Your task to perform on an android device: turn off airplane mode Image 0: 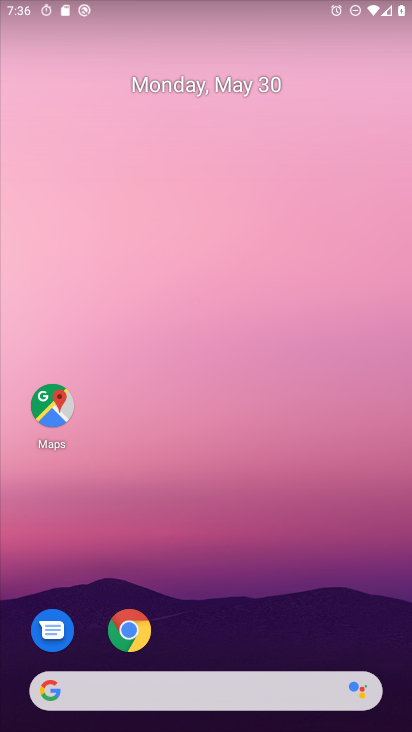
Step 0: drag from (369, 626) to (262, 79)
Your task to perform on an android device: turn off airplane mode Image 1: 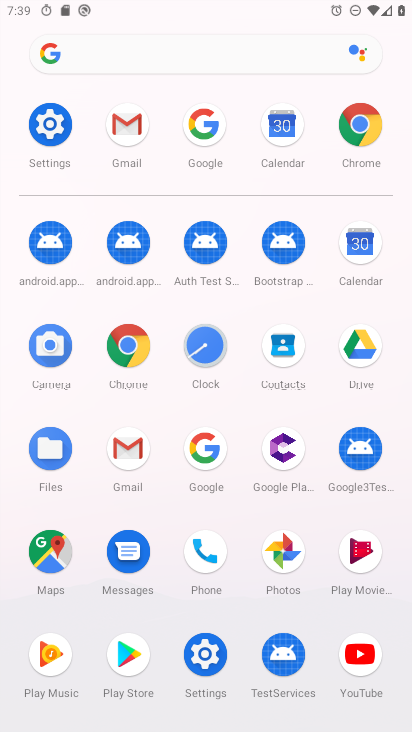
Step 1: task complete